Your task to perform on an android device: Open calendar and show me the fourth week of next month Image 0: 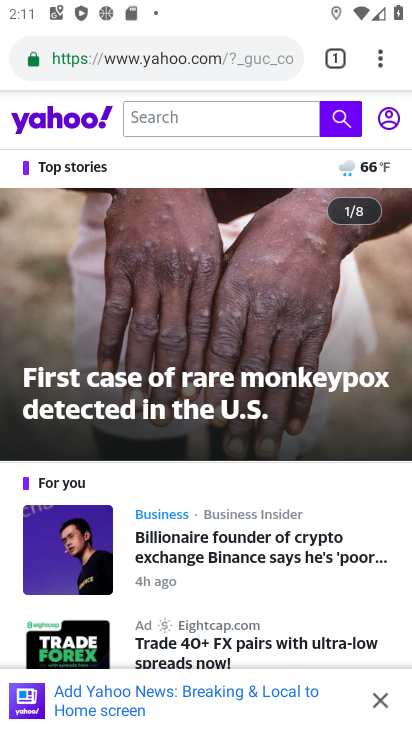
Step 0: press home button
Your task to perform on an android device: Open calendar and show me the fourth week of next month Image 1: 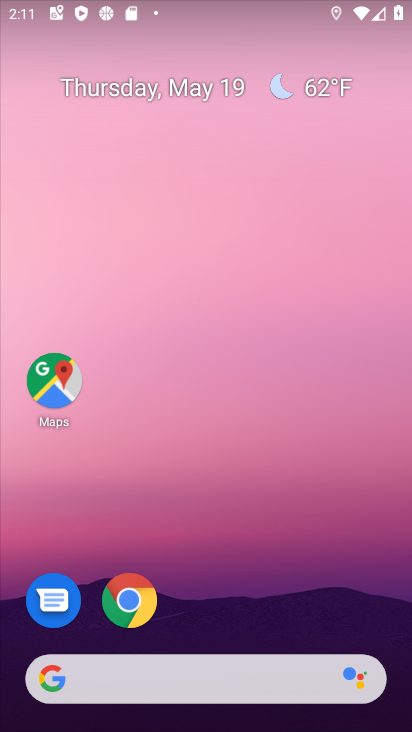
Step 1: drag from (14, 521) to (182, 163)
Your task to perform on an android device: Open calendar and show me the fourth week of next month Image 2: 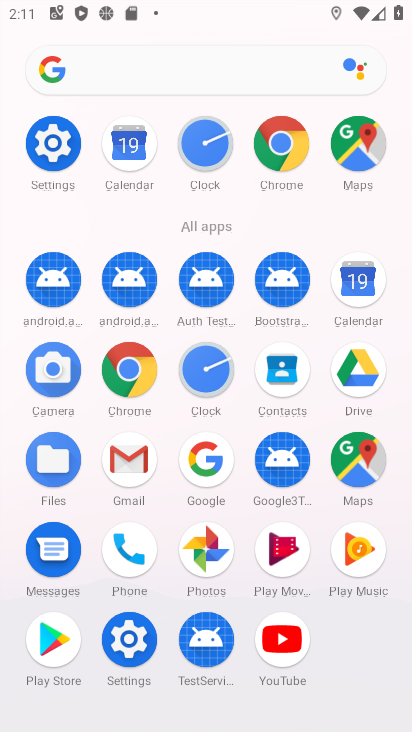
Step 2: click (378, 285)
Your task to perform on an android device: Open calendar and show me the fourth week of next month Image 3: 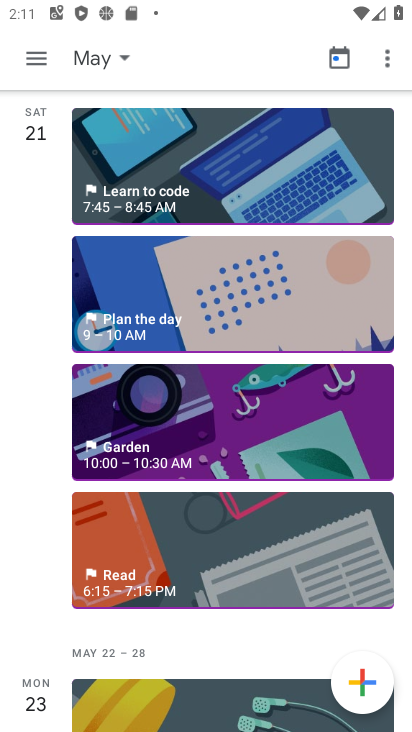
Step 3: click (71, 58)
Your task to perform on an android device: Open calendar and show me the fourth week of next month Image 4: 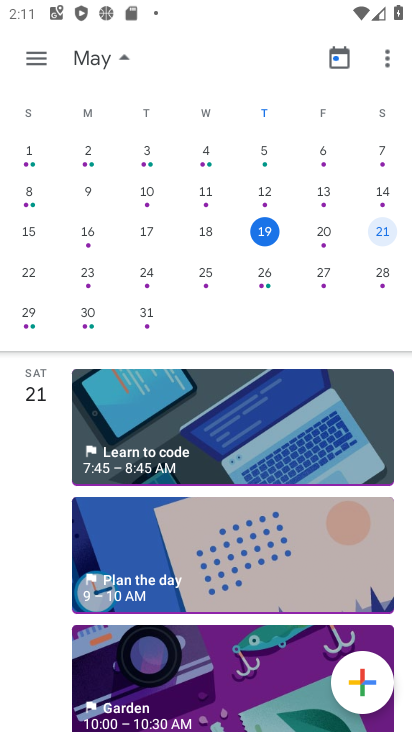
Step 4: drag from (401, 230) to (9, 187)
Your task to perform on an android device: Open calendar and show me the fourth week of next month Image 5: 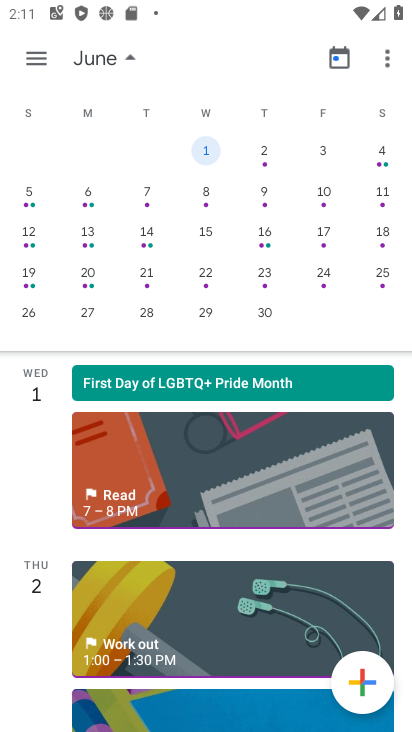
Step 5: click (190, 271)
Your task to perform on an android device: Open calendar and show me the fourth week of next month Image 6: 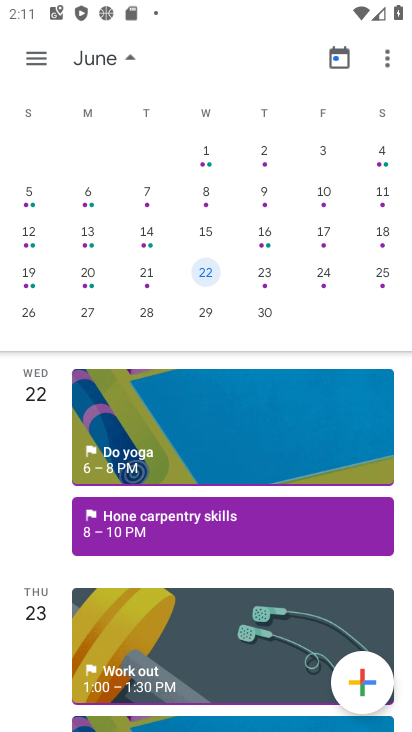
Step 6: click (69, 276)
Your task to perform on an android device: Open calendar and show me the fourth week of next month Image 7: 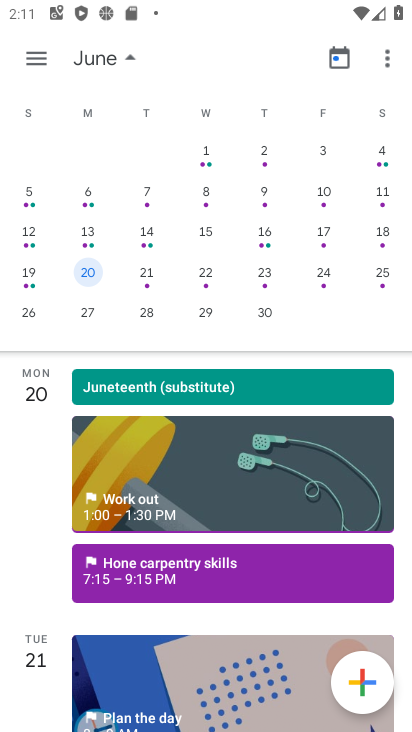
Step 7: click (146, 267)
Your task to perform on an android device: Open calendar and show me the fourth week of next month Image 8: 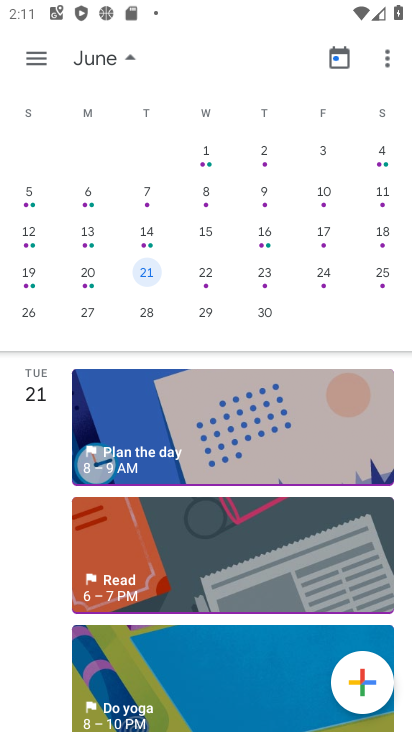
Step 8: click (271, 276)
Your task to perform on an android device: Open calendar and show me the fourth week of next month Image 9: 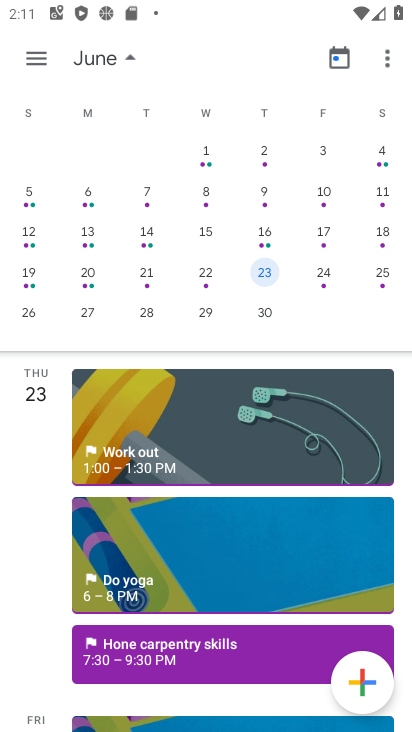
Step 9: click (313, 277)
Your task to perform on an android device: Open calendar and show me the fourth week of next month Image 10: 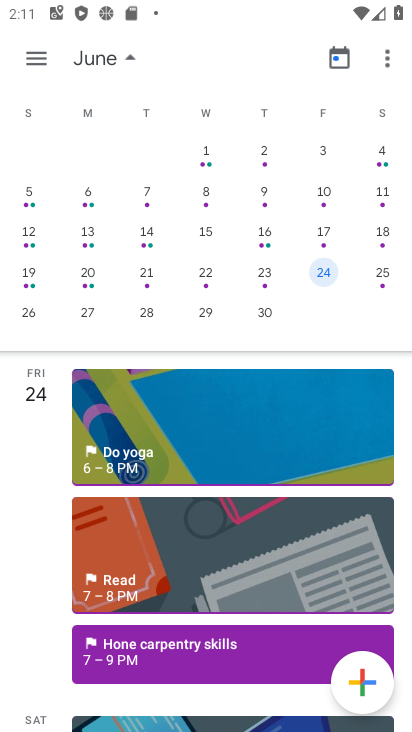
Step 10: task complete